Your task to perform on an android device: Turn on the flashlight Image 0: 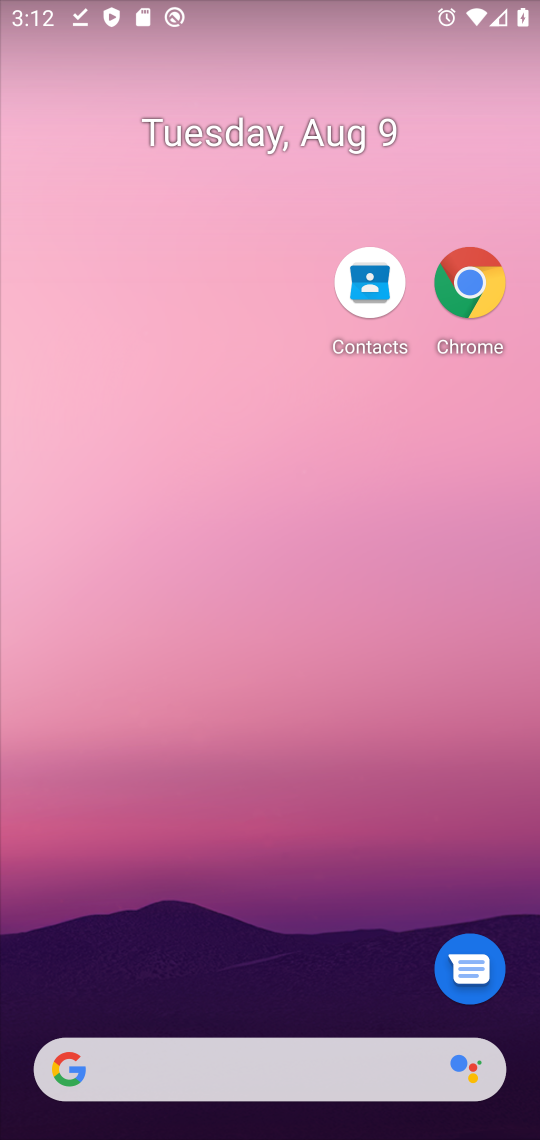
Step 0: drag from (226, 469) to (256, 125)
Your task to perform on an android device: Turn on the flashlight Image 1: 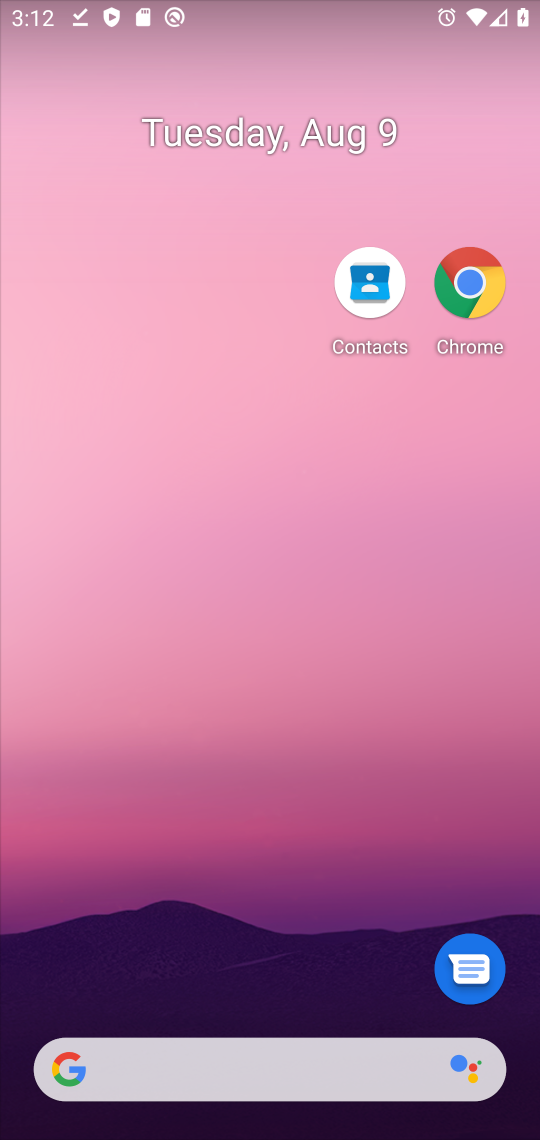
Step 1: drag from (272, 962) to (296, 181)
Your task to perform on an android device: Turn on the flashlight Image 2: 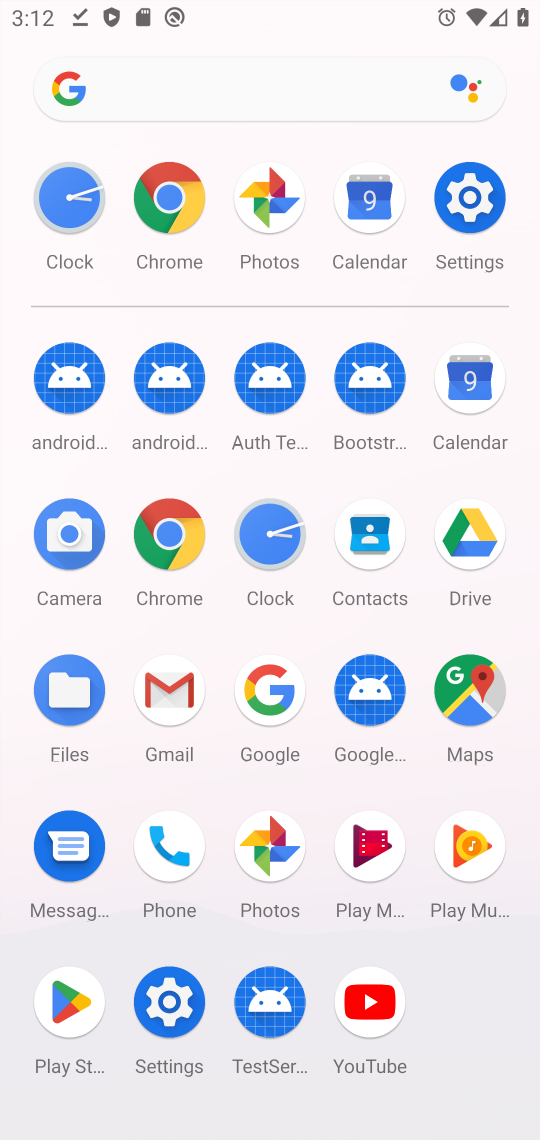
Step 2: click (167, 991)
Your task to perform on an android device: Turn on the flashlight Image 3: 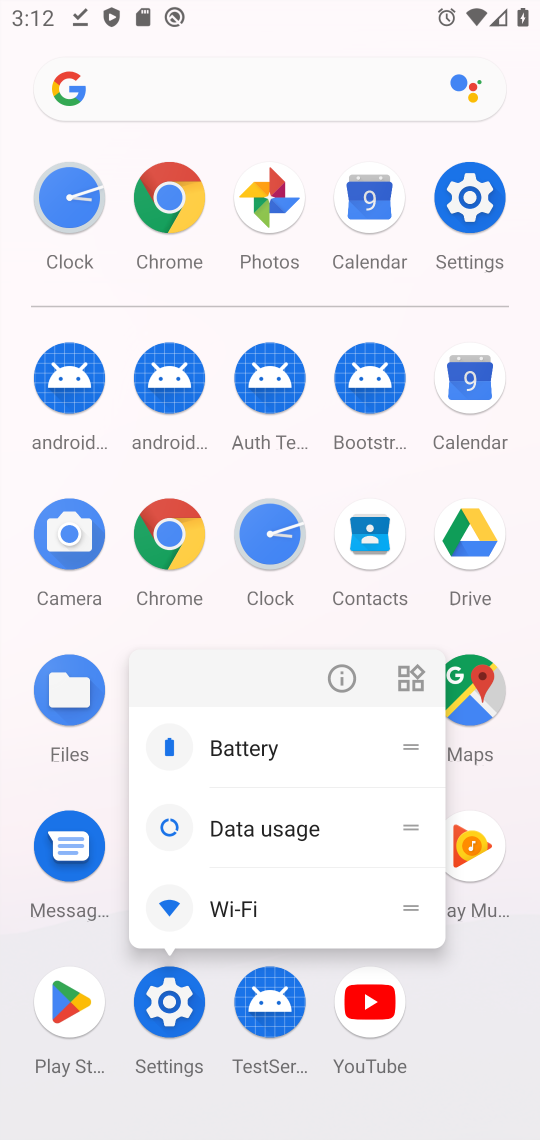
Step 3: click (325, 688)
Your task to perform on an android device: Turn on the flashlight Image 4: 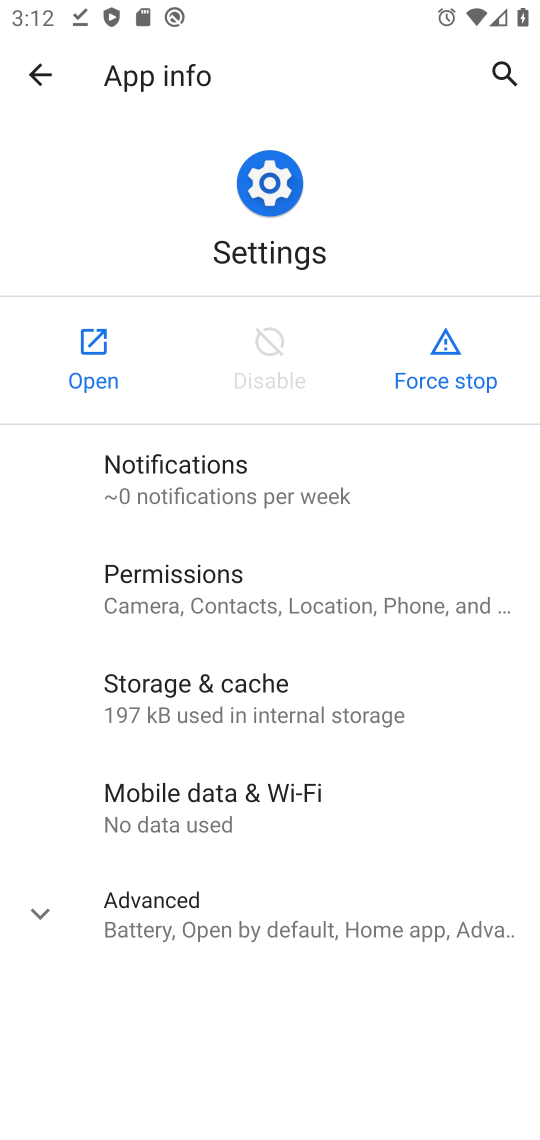
Step 4: click (100, 352)
Your task to perform on an android device: Turn on the flashlight Image 5: 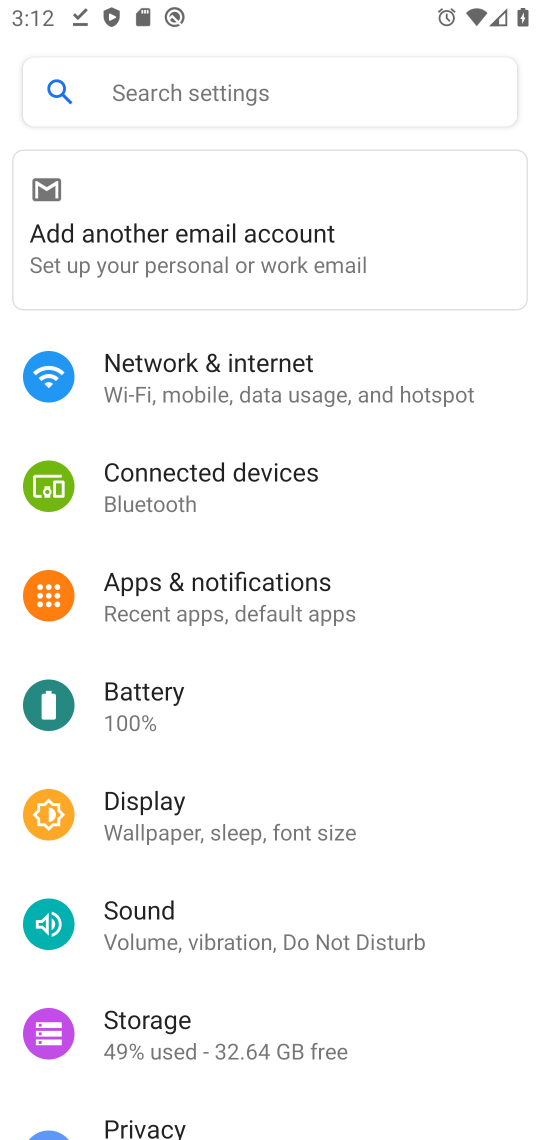
Step 5: click (98, 351)
Your task to perform on an android device: Turn on the flashlight Image 6: 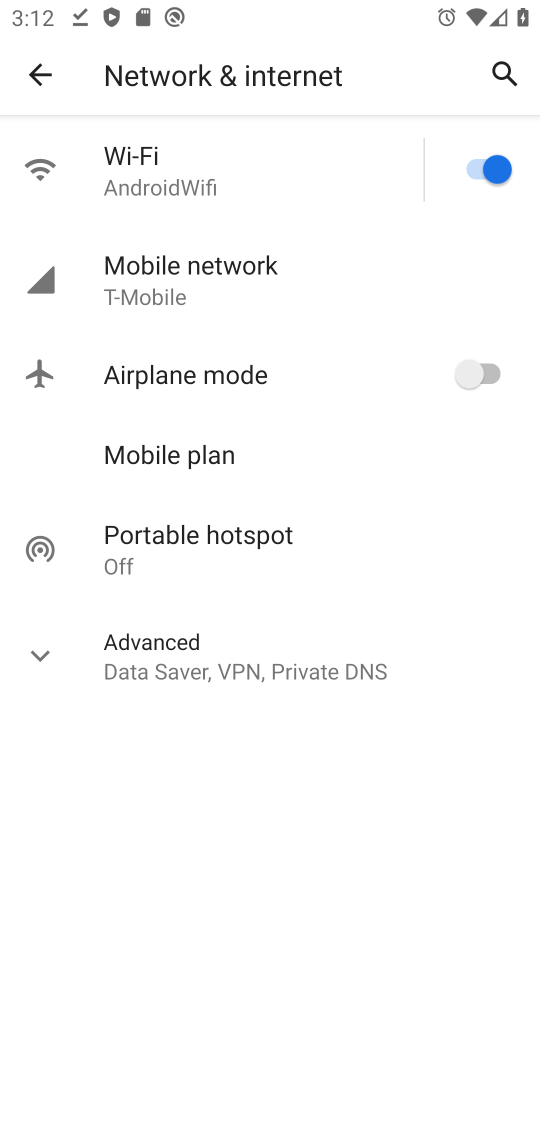
Step 6: click (39, 75)
Your task to perform on an android device: Turn on the flashlight Image 7: 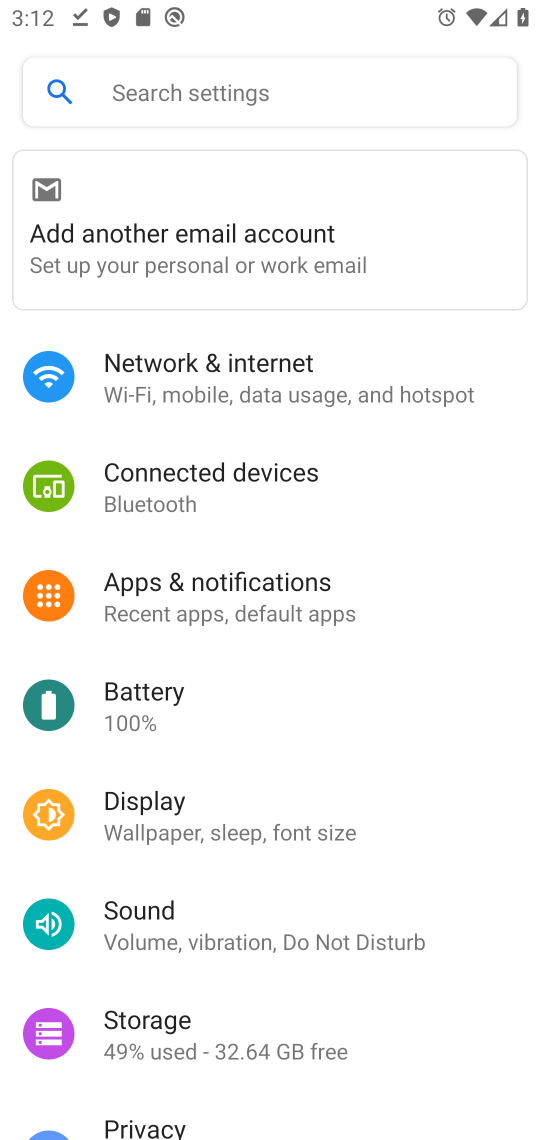
Step 7: click (357, 75)
Your task to perform on an android device: Turn on the flashlight Image 8: 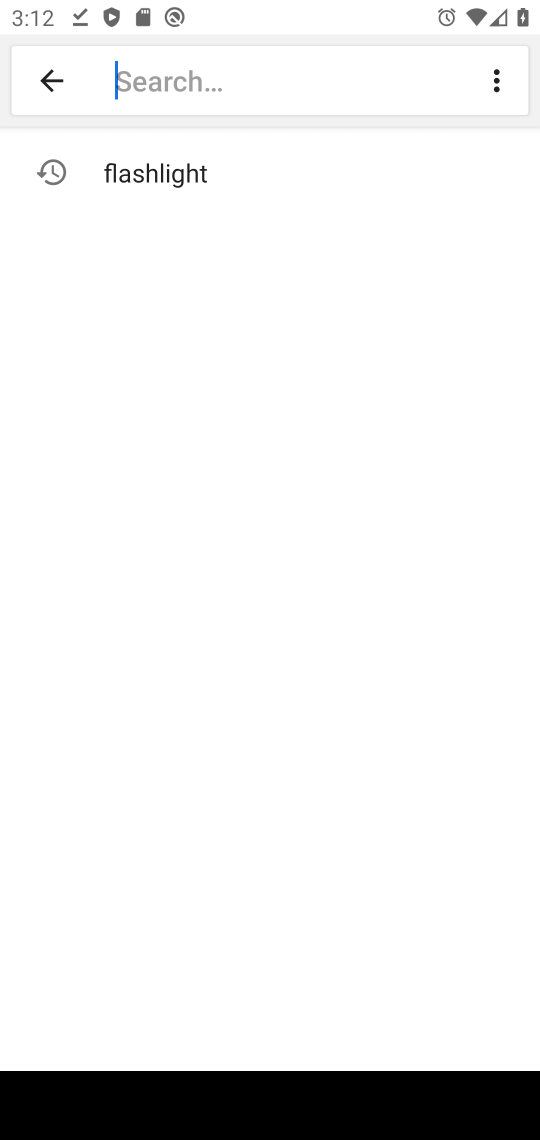
Step 8: type "flashlight"
Your task to perform on an android device: Turn on the flashlight Image 9: 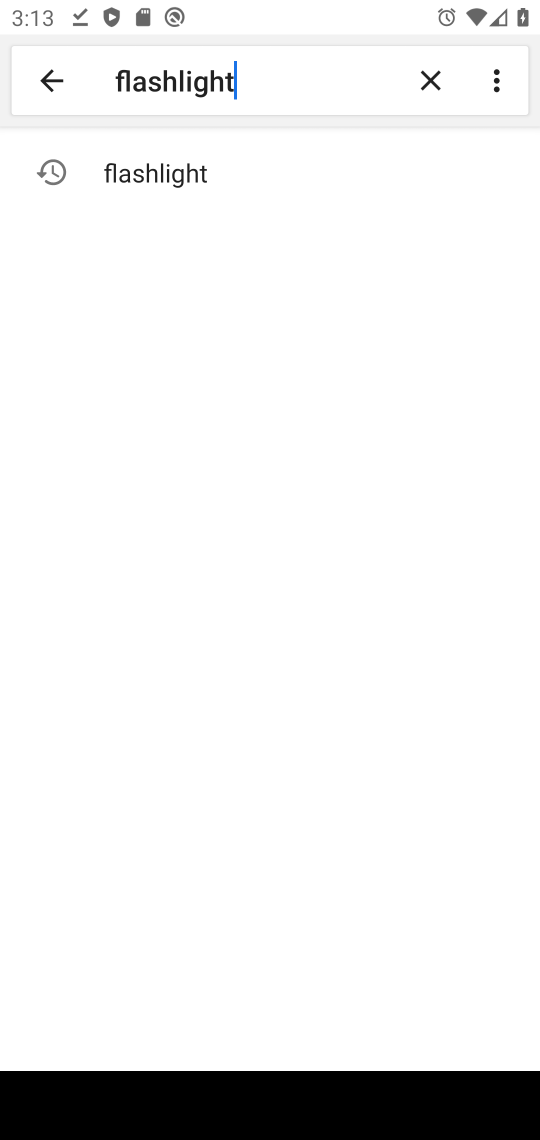
Step 9: type ""
Your task to perform on an android device: Turn on the flashlight Image 10: 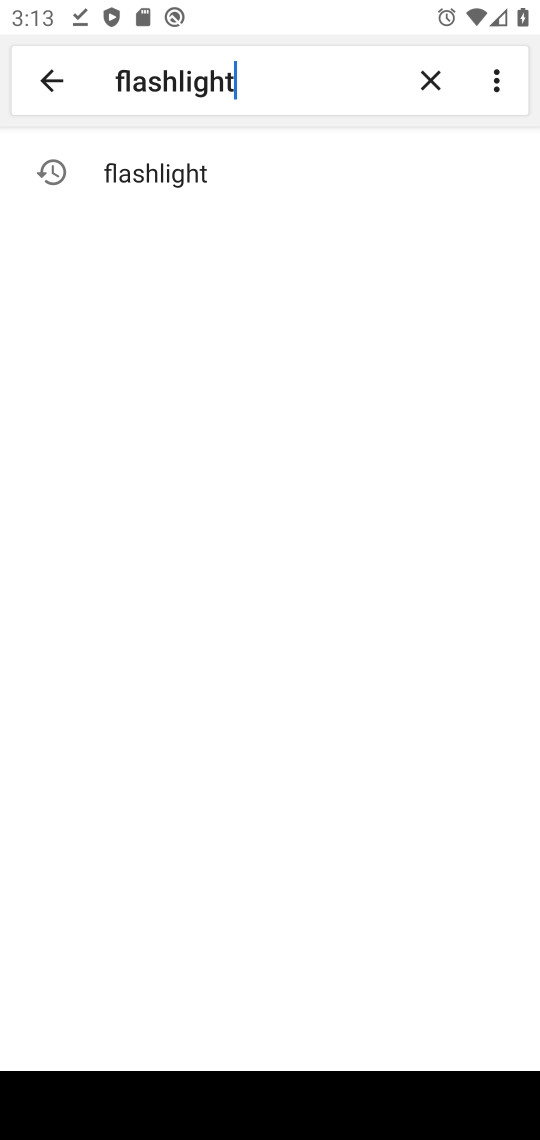
Step 10: click (362, 165)
Your task to perform on an android device: Turn on the flashlight Image 11: 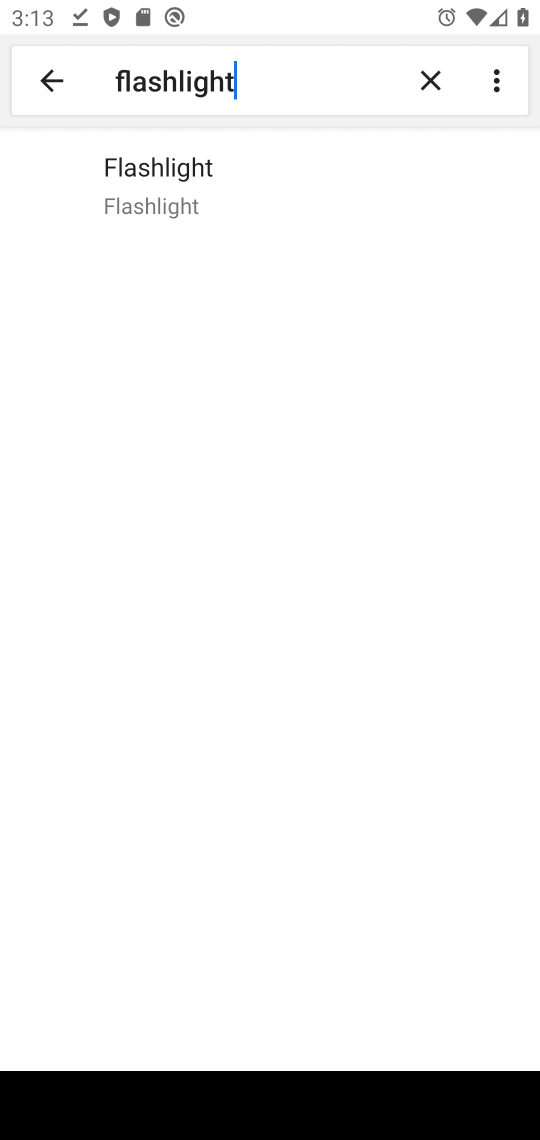
Step 11: click (214, 155)
Your task to perform on an android device: Turn on the flashlight Image 12: 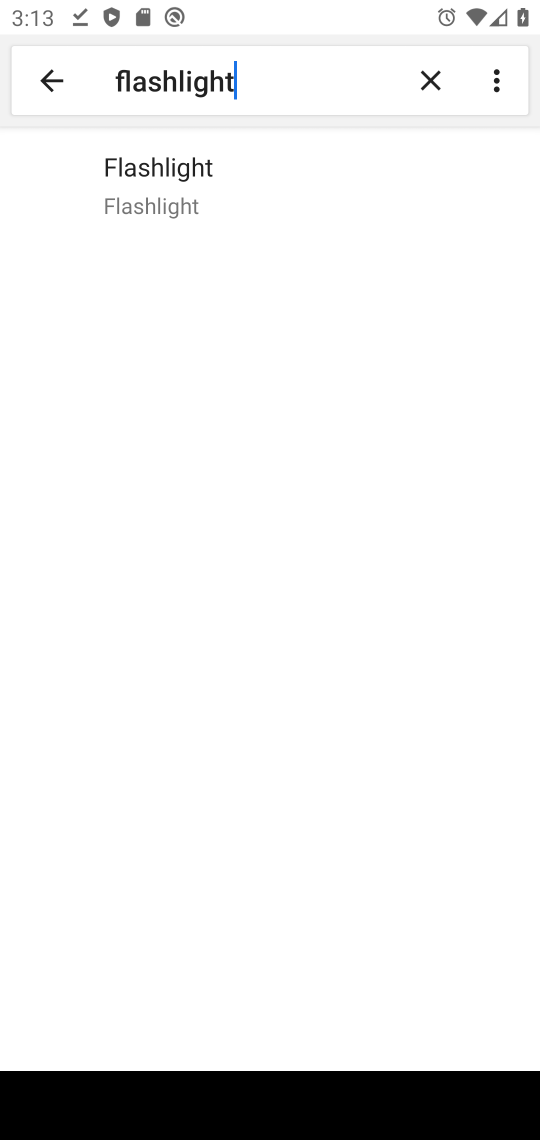
Step 12: click (255, 193)
Your task to perform on an android device: Turn on the flashlight Image 13: 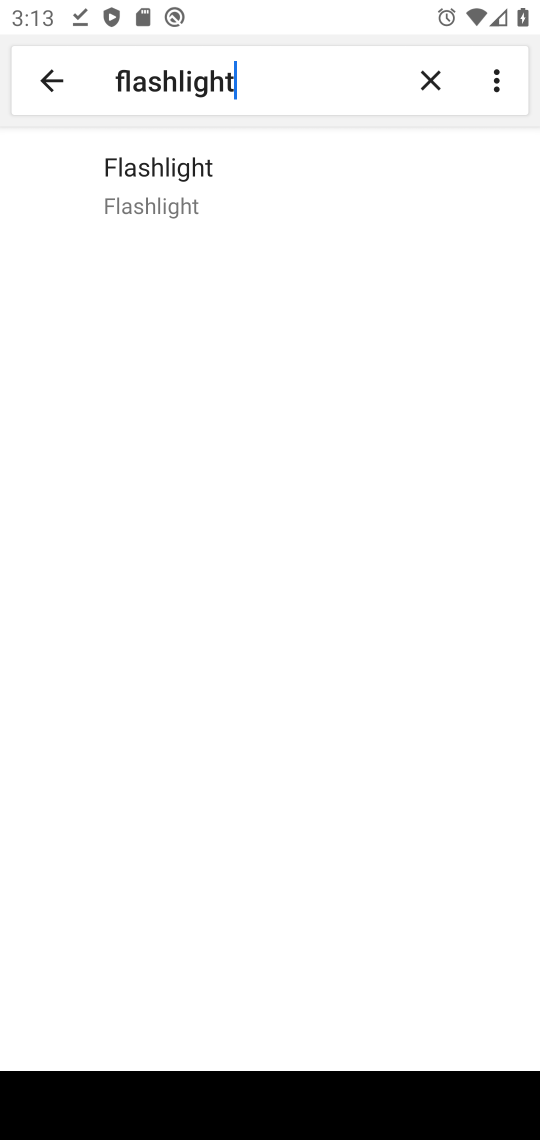
Step 13: task complete